Your task to perform on an android device: delete the emails in spam in the gmail app Image 0: 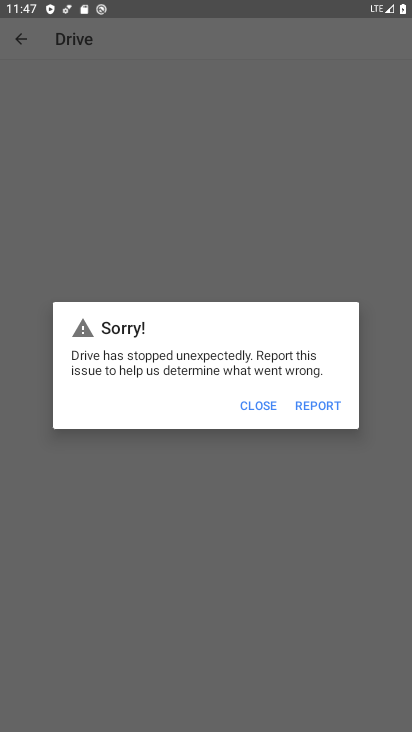
Step 0: press home button
Your task to perform on an android device: delete the emails in spam in the gmail app Image 1: 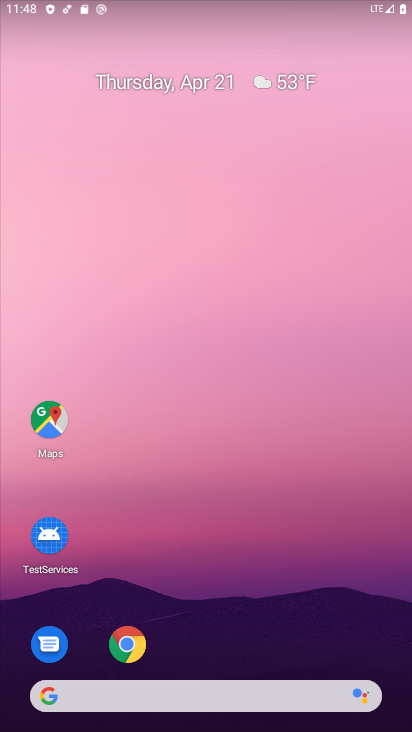
Step 1: drag from (300, 629) to (245, 51)
Your task to perform on an android device: delete the emails in spam in the gmail app Image 2: 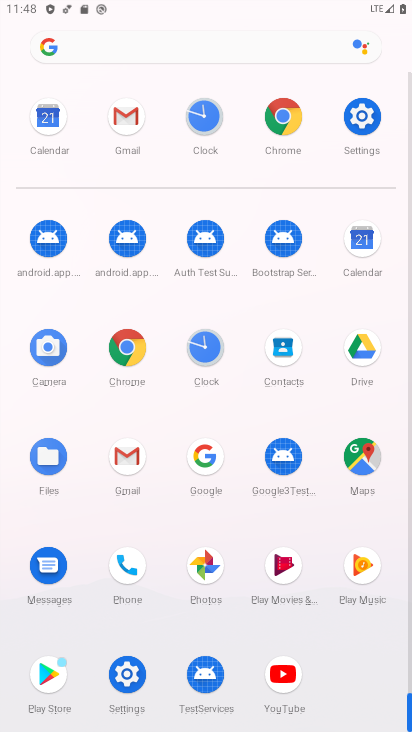
Step 2: click (130, 465)
Your task to perform on an android device: delete the emails in spam in the gmail app Image 3: 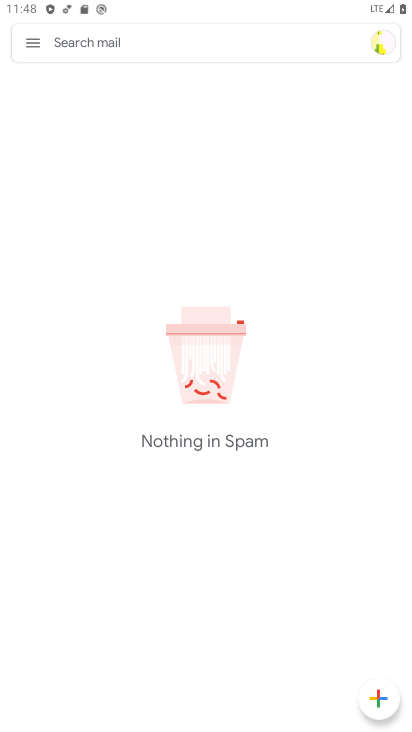
Step 3: task complete